Your task to perform on an android device: Toggle the flashlight Image 0: 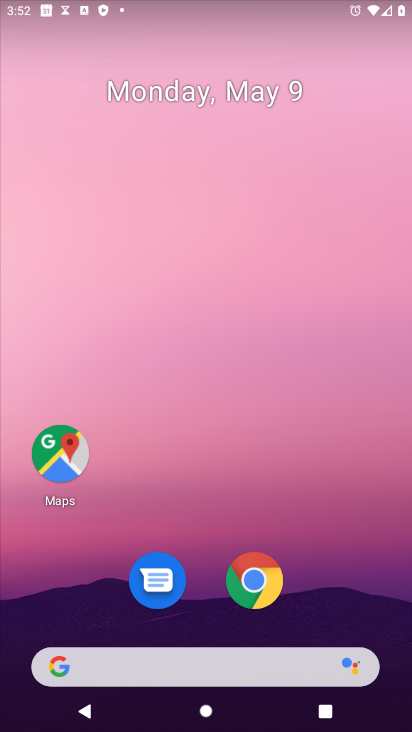
Step 0: drag from (222, 15) to (149, 622)
Your task to perform on an android device: Toggle the flashlight Image 1: 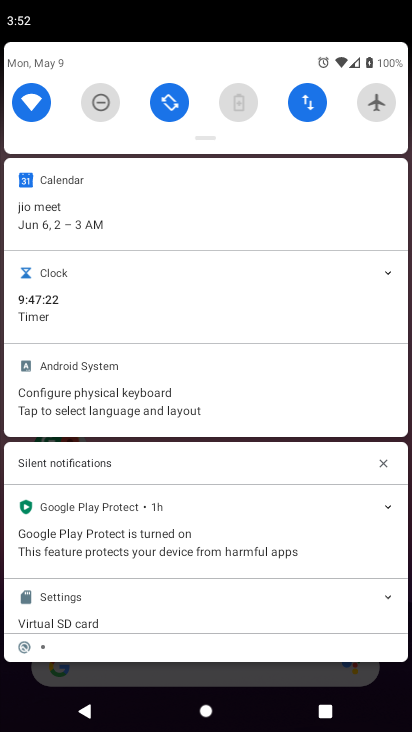
Step 1: drag from (220, 225) to (175, 716)
Your task to perform on an android device: Toggle the flashlight Image 2: 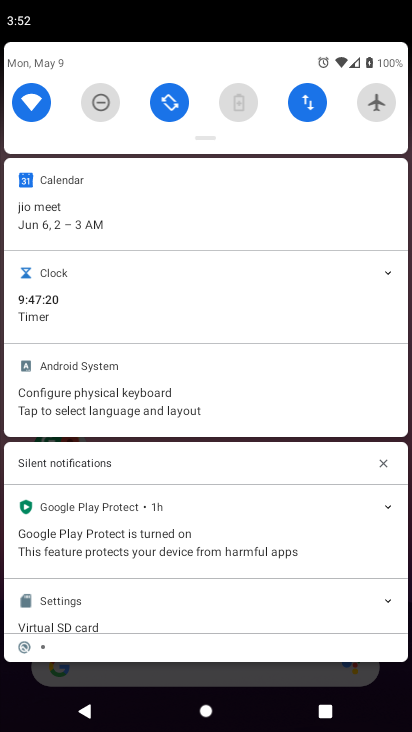
Step 2: click (316, 264)
Your task to perform on an android device: Toggle the flashlight Image 3: 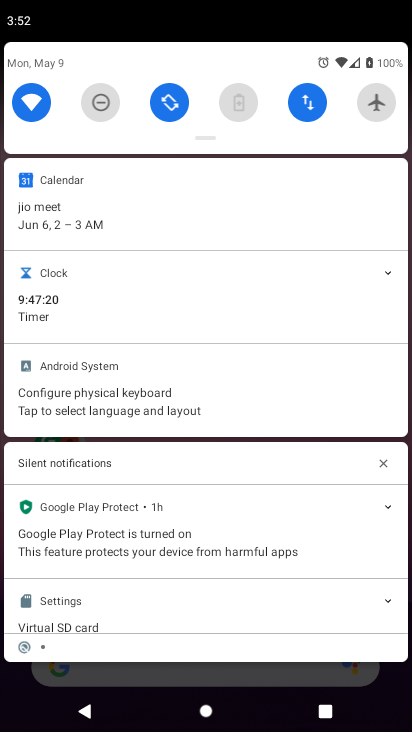
Step 3: task complete